Your task to perform on an android device: What's on my calendar today? Image 0: 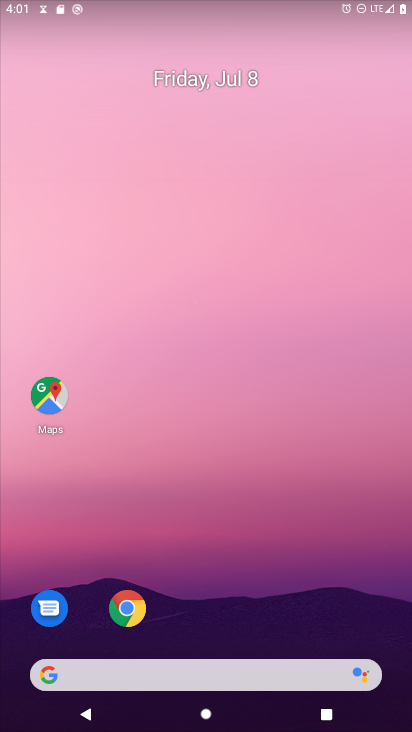
Step 0: drag from (233, 677) to (234, 89)
Your task to perform on an android device: What's on my calendar today? Image 1: 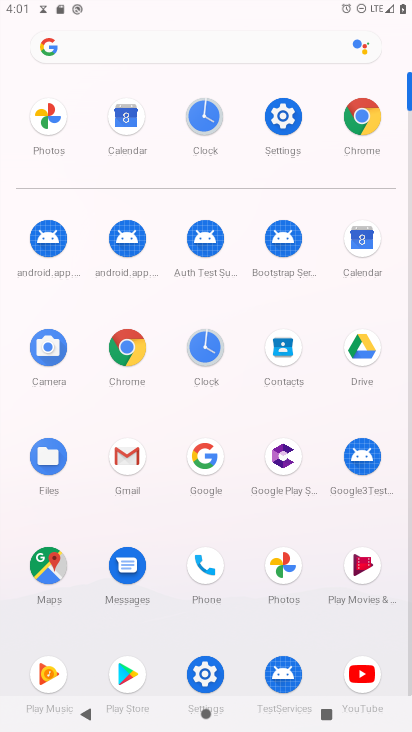
Step 1: click (360, 252)
Your task to perform on an android device: What's on my calendar today? Image 2: 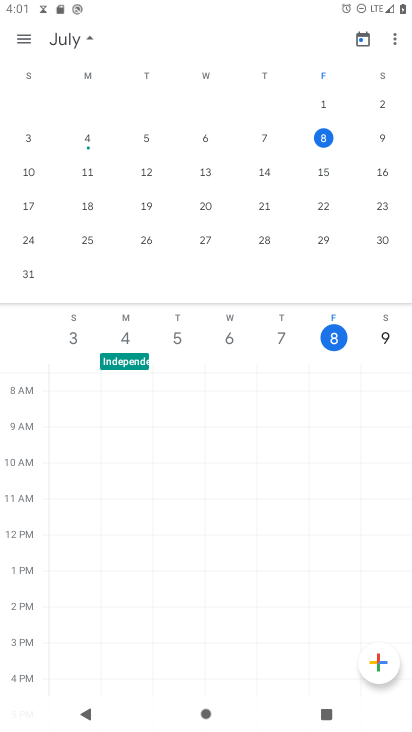
Step 2: click (328, 140)
Your task to perform on an android device: What's on my calendar today? Image 3: 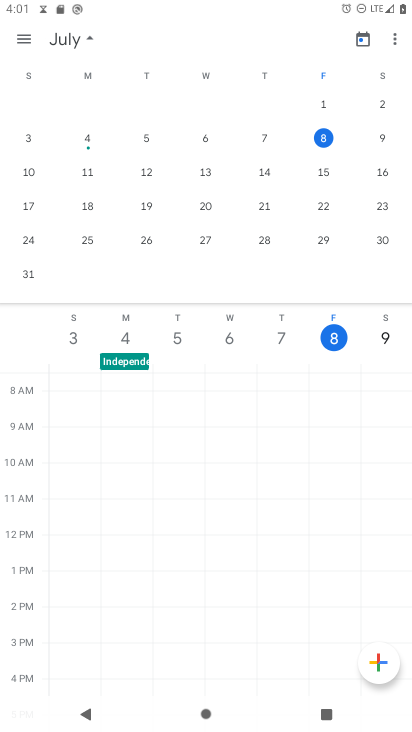
Step 3: task complete